Your task to perform on an android device: toggle data saver in the chrome app Image 0: 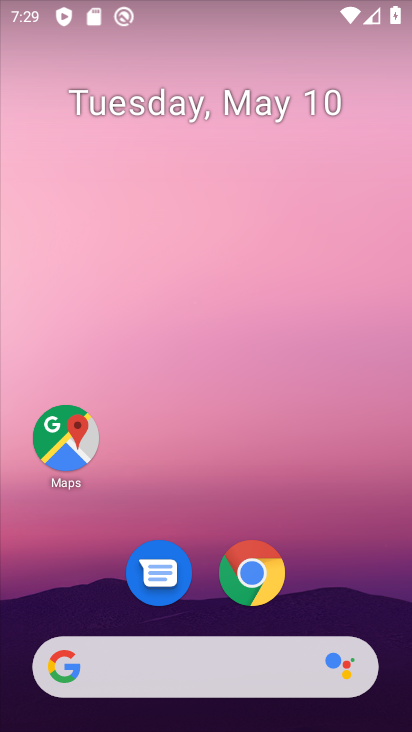
Step 0: drag from (354, 584) to (357, 142)
Your task to perform on an android device: toggle data saver in the chrome app Image 1: 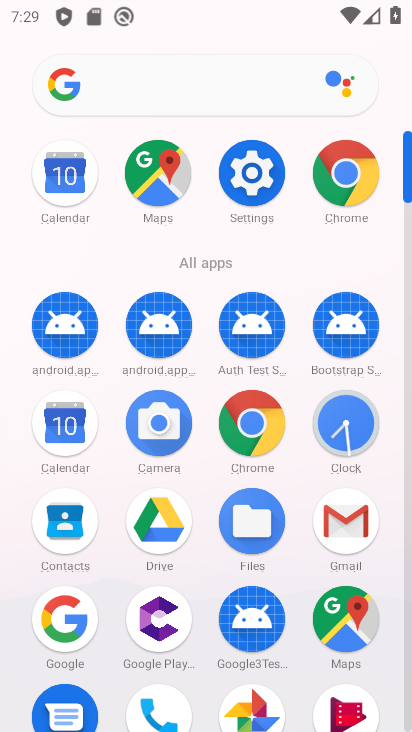
Step 1: click (233, 447)
Your task to perform on an android device: toggle data saver in the chrome app Image 2: 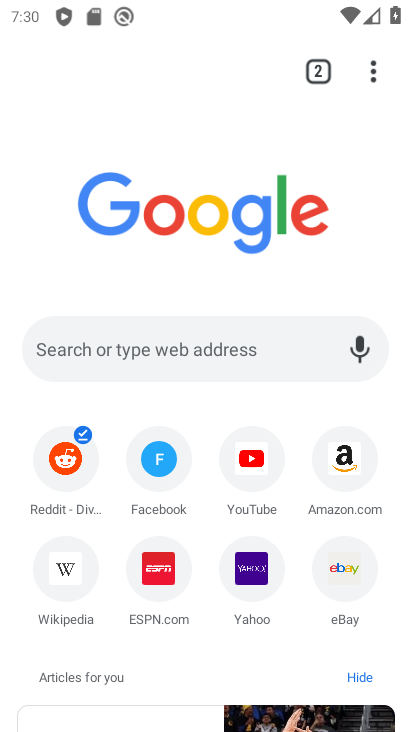
Step 2: drag from (372, 81) to (188, 608)
Your task to perform on an android device: toggle data saver in the chrome app Image 3: 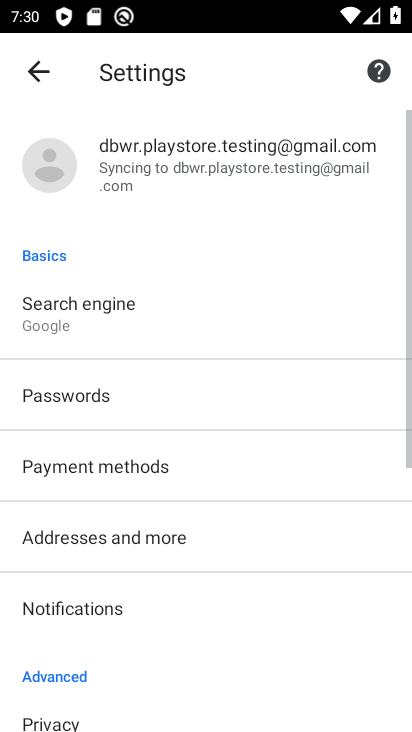
Step 3: drag from (255, 655) to (253, 365)
Your task to perform on an android device: toggle data saver in the chrome app Image 4: 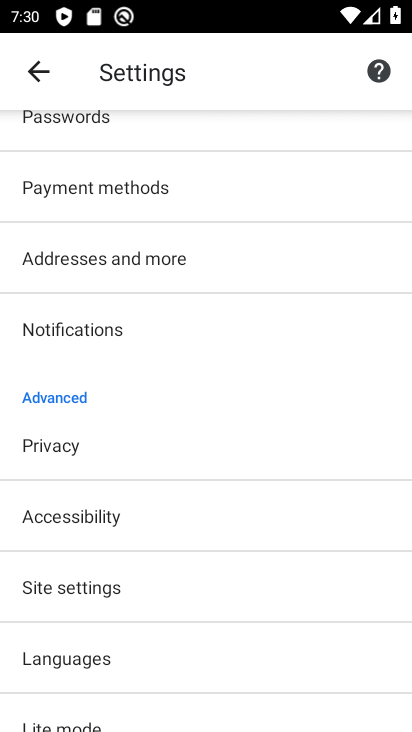
Step 4: drag from (302, 661) to (332, 321)
Your task to perform on an android device: toggle data saver in the chrome app Image 5: 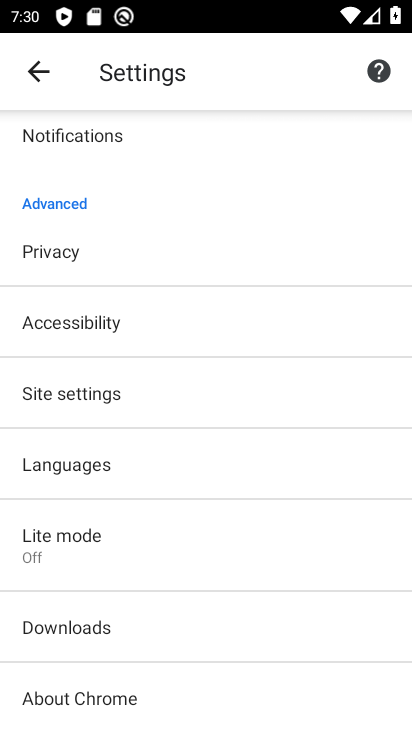
Step 5: click (192, 564)
Your task to perform on an android device: toggle data saver in the chrome app Image 6: 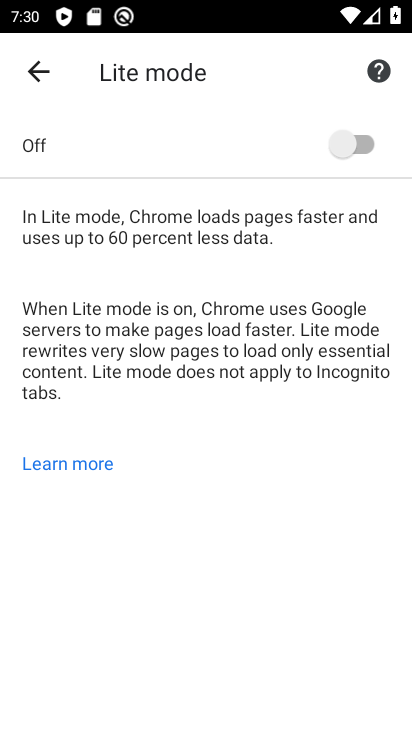
Step 6: click (369, 151)
Your task to perform on an android device: toggle data saver in the chrome app Image 7: 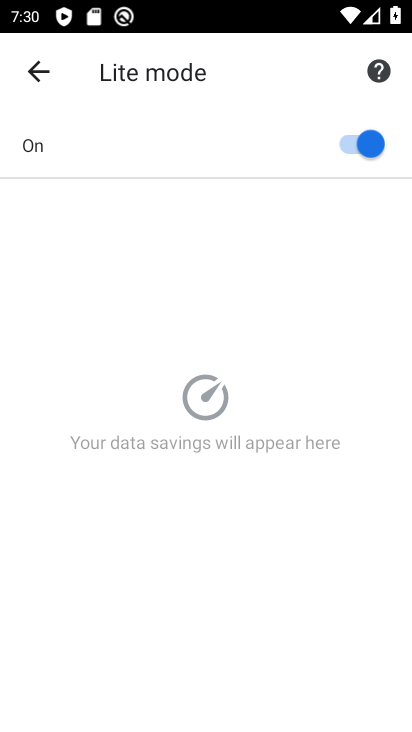
Step 7: task complete